Your task to perform on an android device: Show me popular videos on Youtube Image 0: 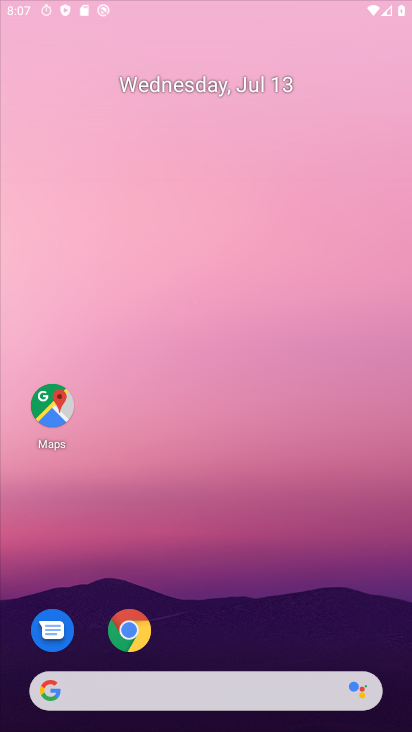
Step 0: click (209, 181)
Your task to perform on an android device: Show me popular videos on Youtube Image 1: 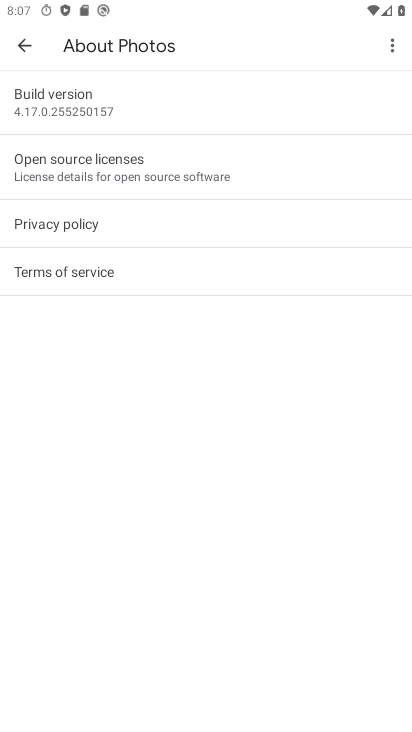
Step 1: press home button
Your task to perform on an android device: Show me popular videos on Youtube Image 2: 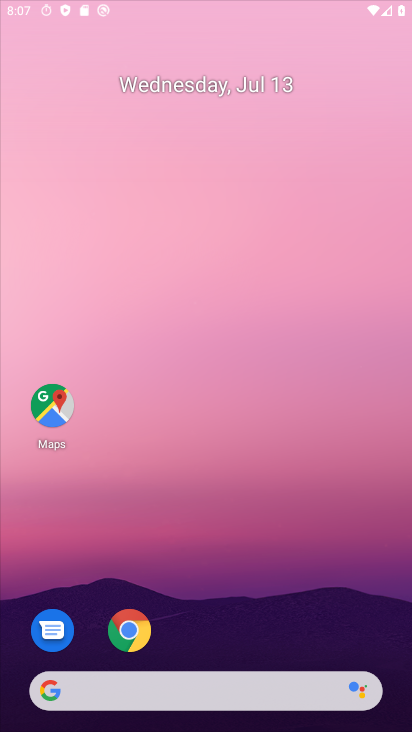
Step 2: drag from (203, 569) to (261, 64)
Your task to perform on an android device: Show me popular videos on Youtube Image 3: 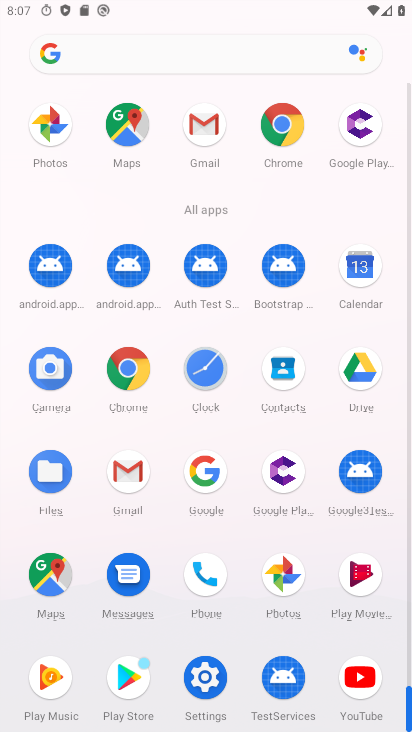
Step 3: click (346, 670)
Your task to perform on an android device: Show me popular videos on Youtube Image 4: 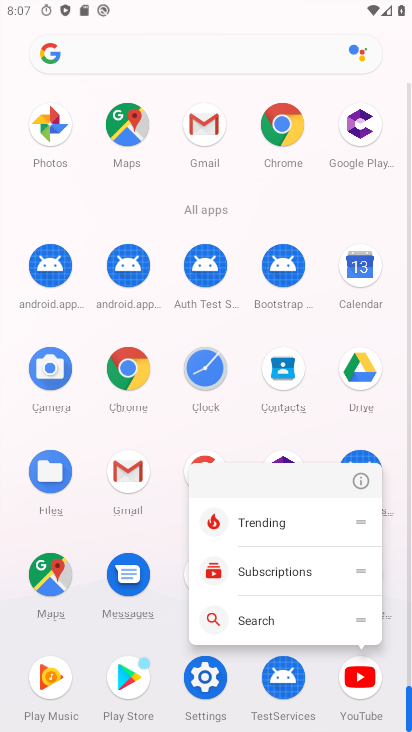
Step 4: click (360, 477)
Your task to perform on an android device: Show me popular videos on Youtube Image 5: 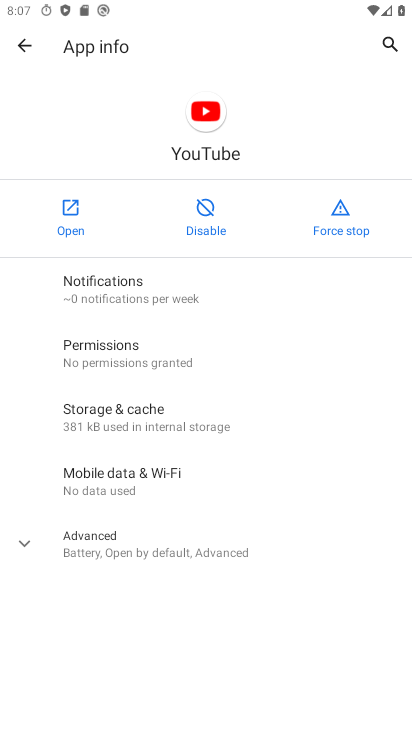
Step 5: click (59, 211)
Your task to perform on an android device: Show me popular videos on Youtube Image 6: 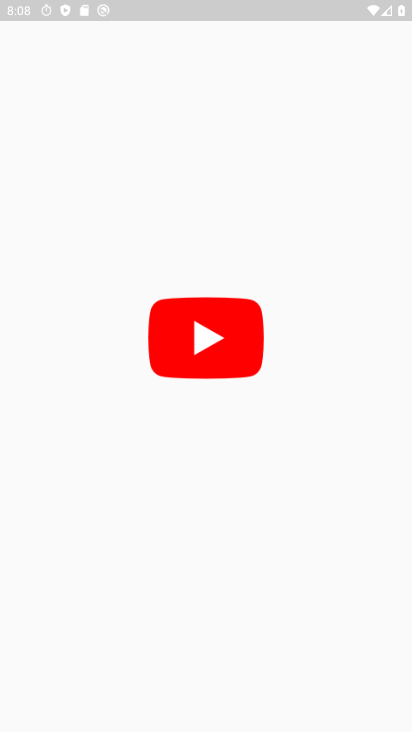
Step 6: drag from (262, 566) to (257, 286)
Your task to perform on an android device: Show me popular videos on Youtube Image 7: 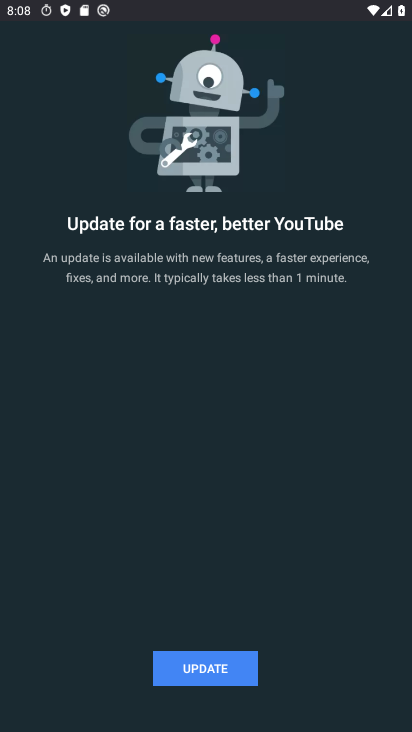
Step 7: press home button
Your task to perform on an android device: Show me popular videos on Youtube Image 8: 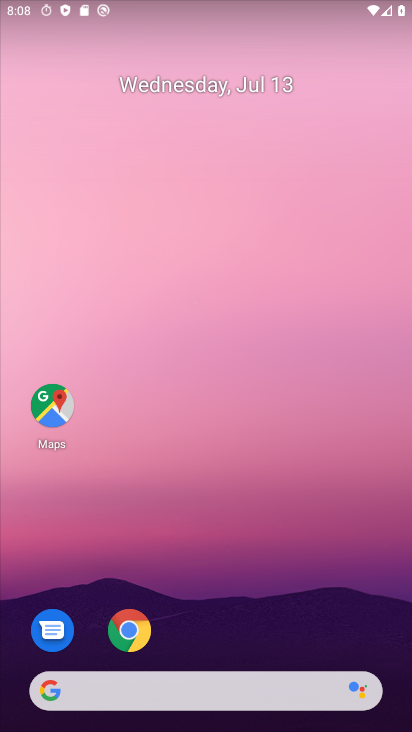
Step 8: drag from (209, 628) to (239, 152)
Your task to perform on an android device: Show me popular videos on Youtube Image 9: 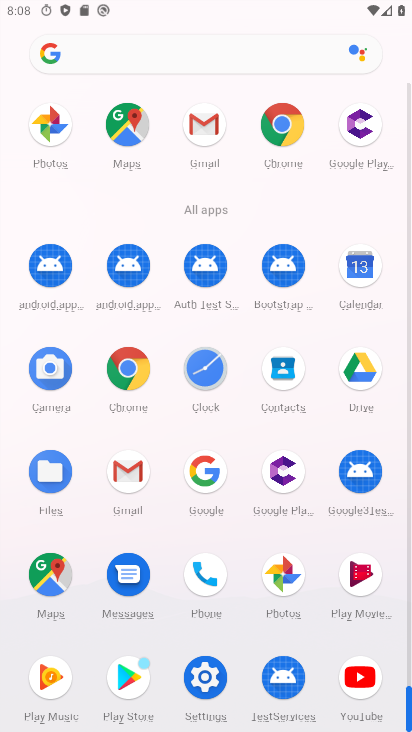
Step 9: click (352, 670)
Your task to perform on an android device: Show me popular videos on Youtube Image 10: 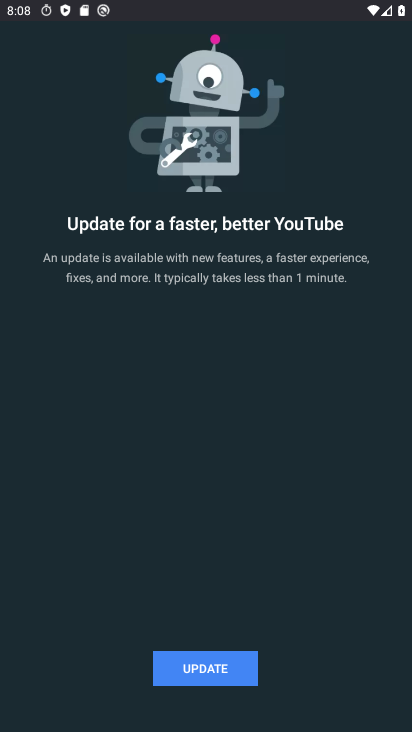
Step 10: task complete